Your task to perform on an android device: Is it going to rain tomorrow? Image 0: 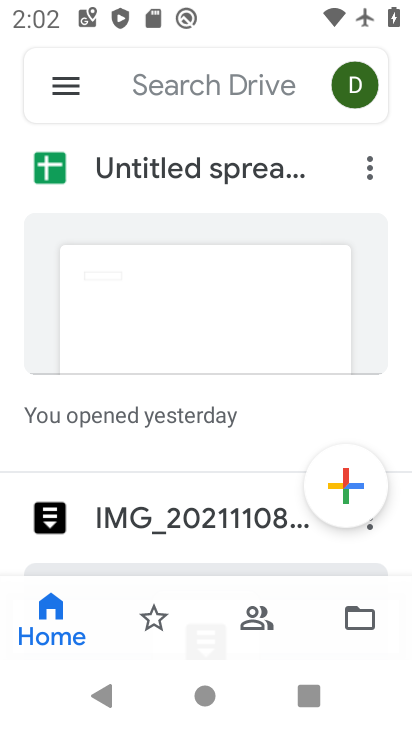
Step 0: press home button
Your task to perform on an android device: Is it going to rain tomorrow? Image 1: 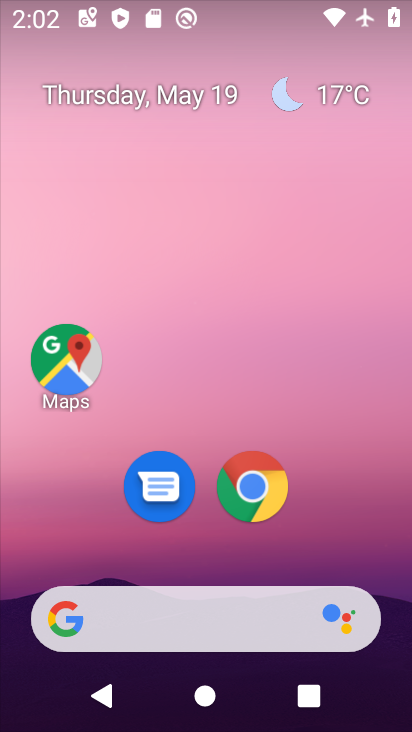
Step 1: drag from (359, 564) to (216, 60)
Your task to perform on an android device: Is it going to rain tomorrow? Image 2: 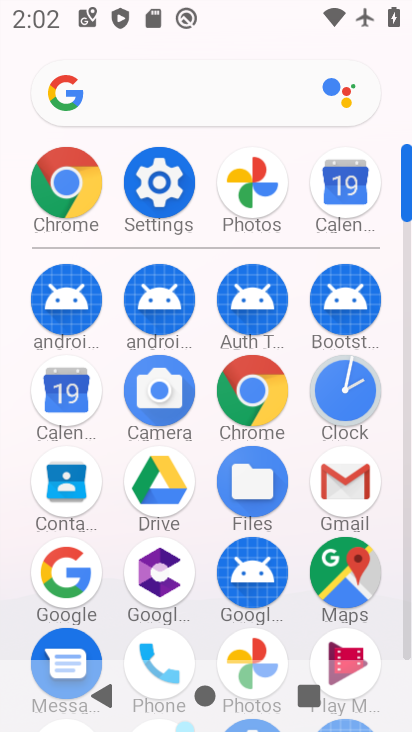
Step 2: click (59, 580)
Your task to perform on an android device: Is it going to rain tomorrow? Image 3: 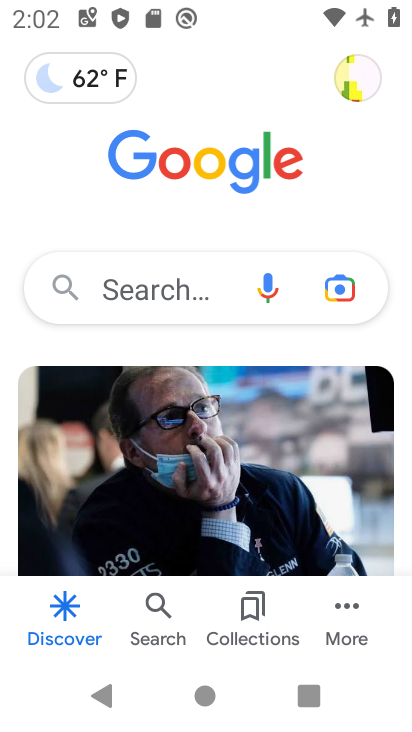
Step 3: click (100, 85)
Your task to perform on an android device: Is it going to rain tomorrow? Image 4: 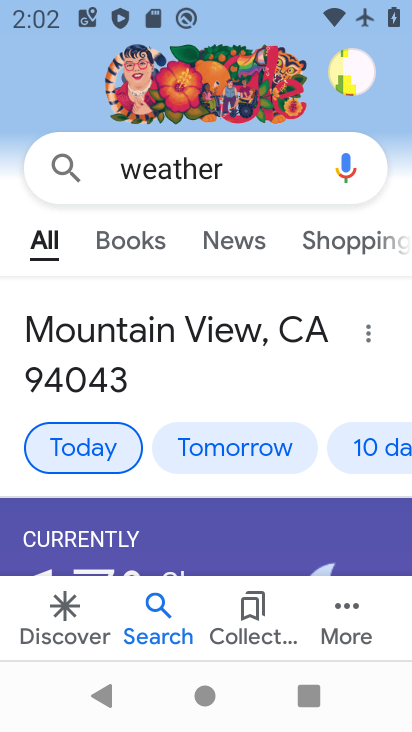
Step 4: click (233, 446)
Your task to perform on an android device: Is it going to rain tomorrow? Image 5: 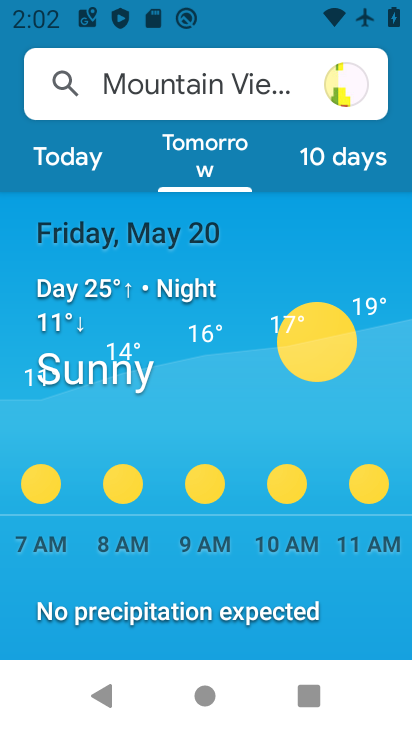
Step 5: task complete